Your task to perform on an android device: See recent photos Image 0: 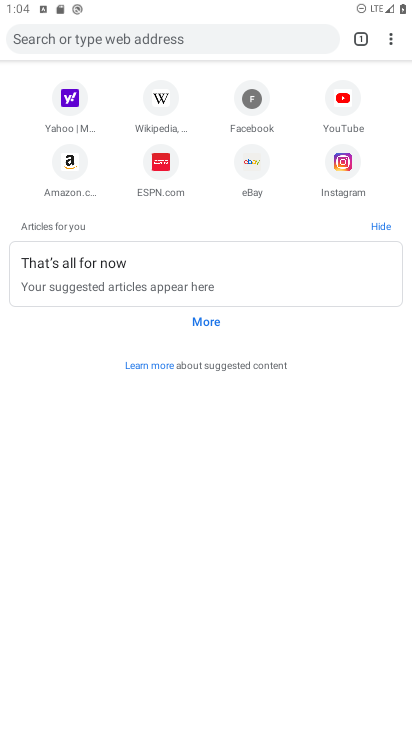
Step 0: press home button
Your task to perform on an android device: See recent photos Image 1: 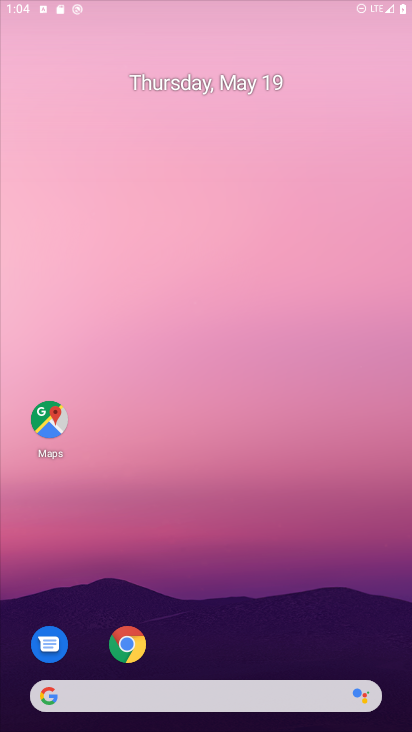
Step 1: drag from (341, 653) to (284, 76)
Your task to perform on an android device: See recent photos Image 2: 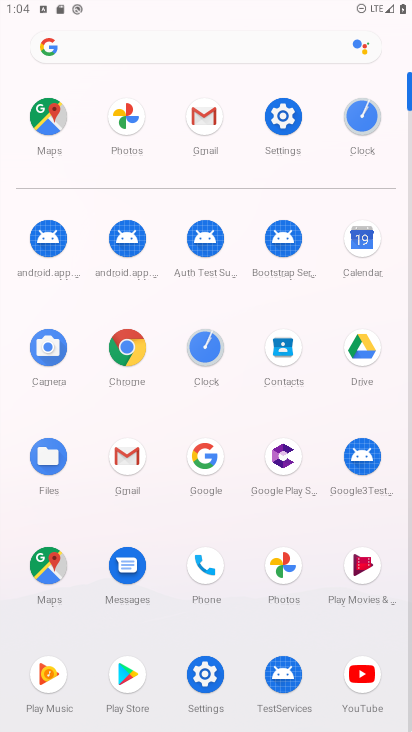
Step 2: click (274, 557)
Your task to perform on an android device: See recent photos Image 3: 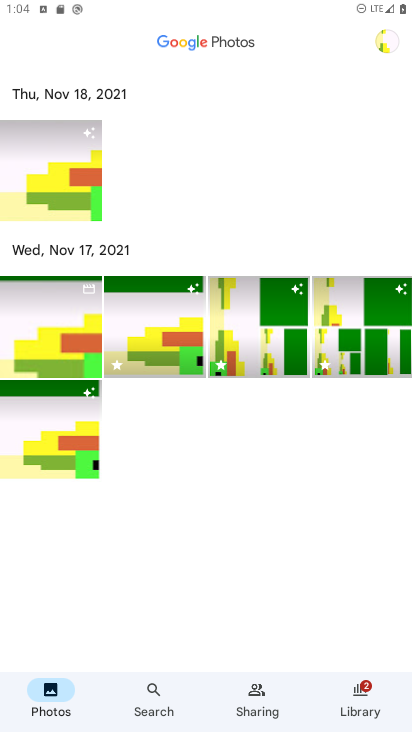
Step 3: click (47, 175)
Your task to perform on an android device: See recent photos Image 4: 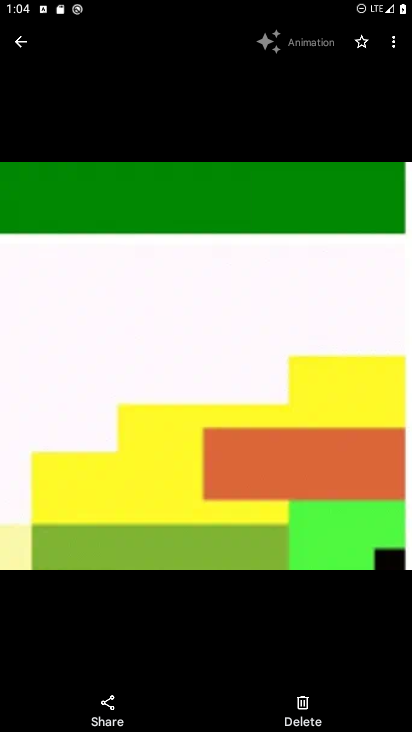
Step 4: task complete